Your task to perform on an android device: check data usage Image 0: 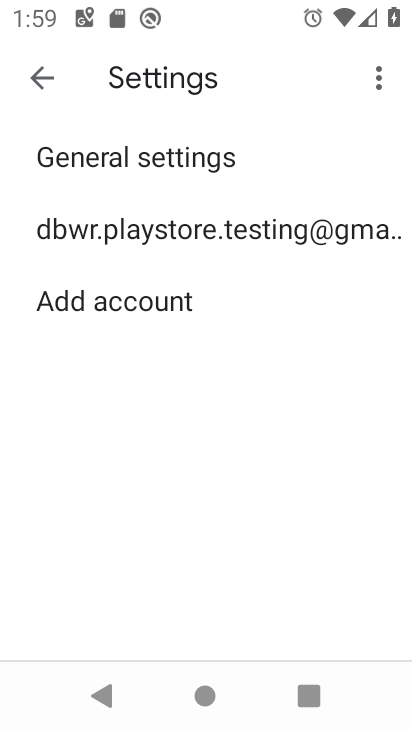
Step 0: press home button
Your task to perform on an android device: check data usage Image 1: 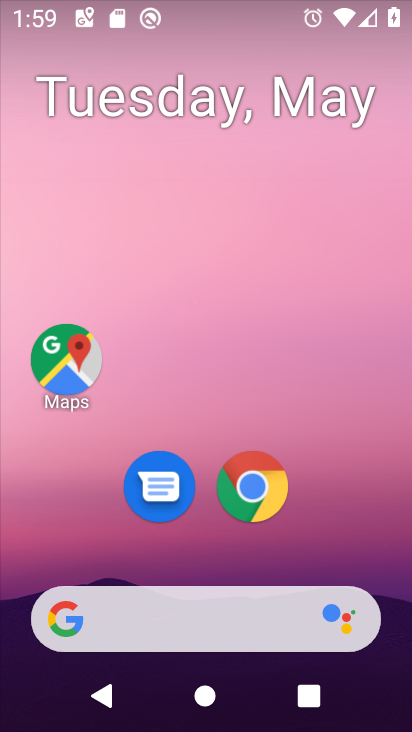
Step 1: drag from (46, 586) to (282, 141)
Your task to perform on an android device: check data usage Image 2: 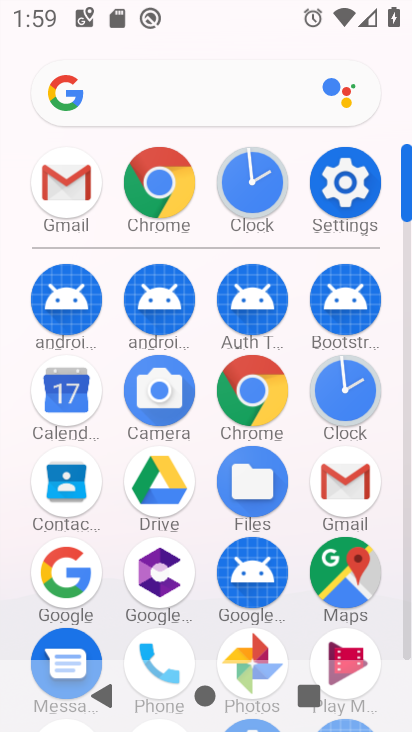
Step 2: click (352, 188)
Your task to perform on an android device: check data usage Image 3: 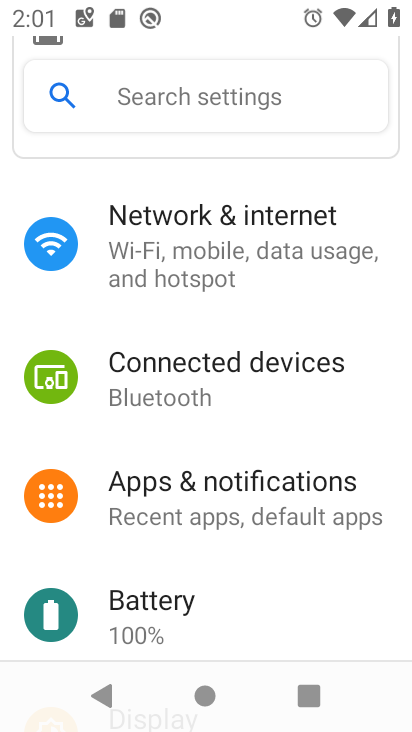
Step 3: drag from (51, 604) to (145, 267)
Your task to perform on an android device: check data usage Image 4: 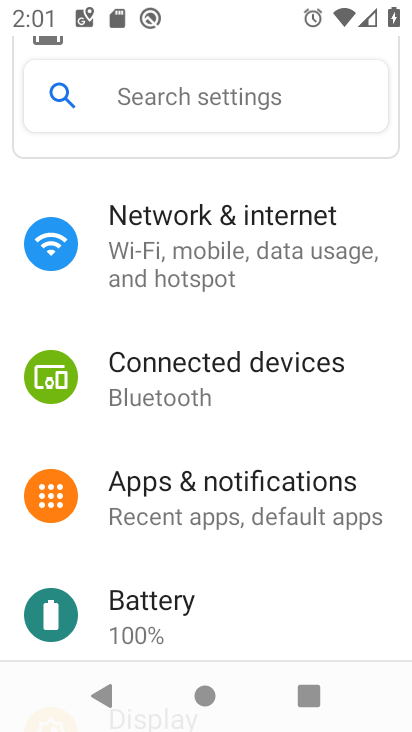
Step 4: click (178, 225)
Your task to perform on an android device: check data usage Image 5: 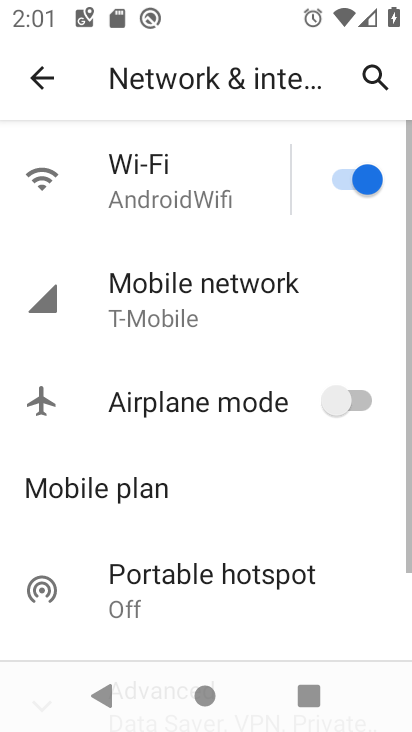
Step 5: click (177, 310)
Your task to perform on an android device: check data usage Image 6: 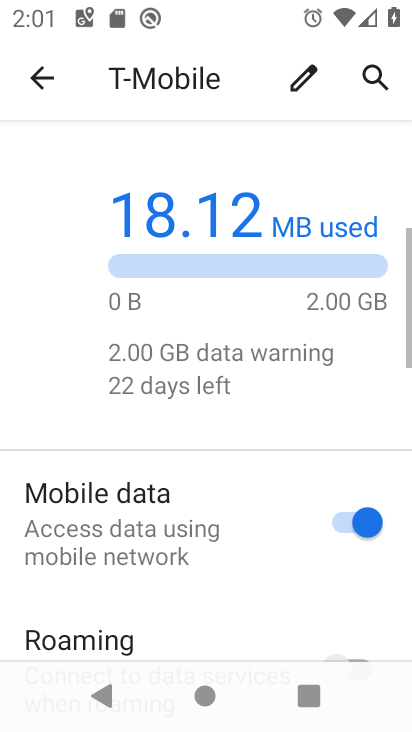
Step 6: task complete